Your task to perform on an android device: Play the last video I watched on Youtube Image 0: 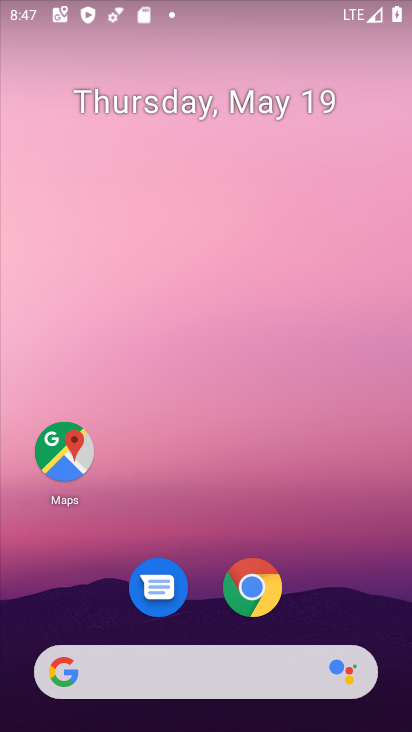
Step 0: drag from (331, 588) to (306, 28)
Your task to perform on an android device: Play the last video I watched on Youtube Image 1: 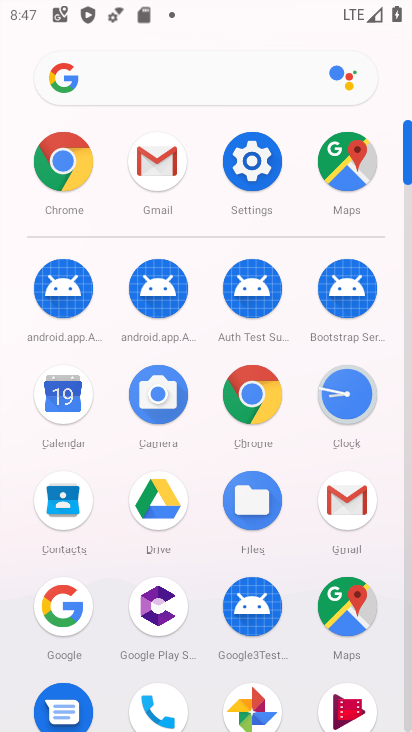
Step 1: drag from (10, 587) to (18, 277)
Your task to perform on an android device: Play the last video I watched on Youtube Image 2: 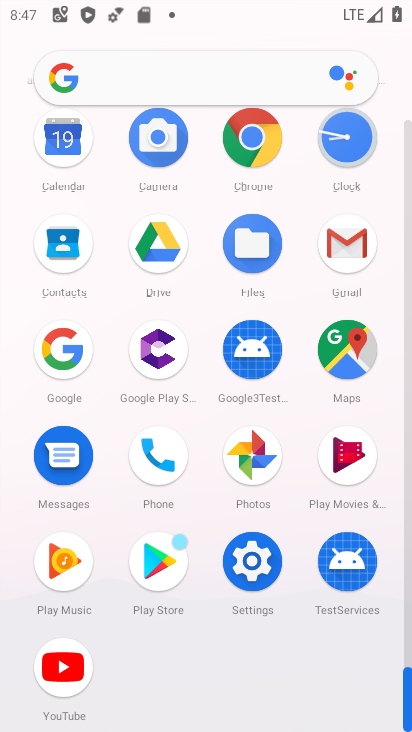
Step 2: click (63, 664)
Your task to perform on an android device: Play the last video I watched on Youtube Image 3: 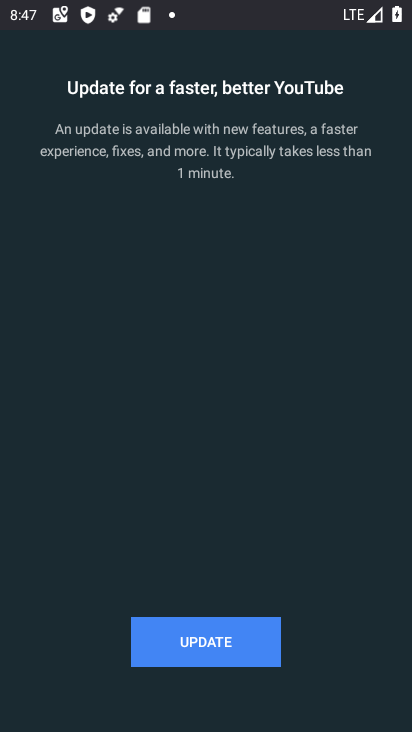
Step 3: click (216, 642)
Your task to perform on an android device: Play the last video I watched on Youtube Image 4: 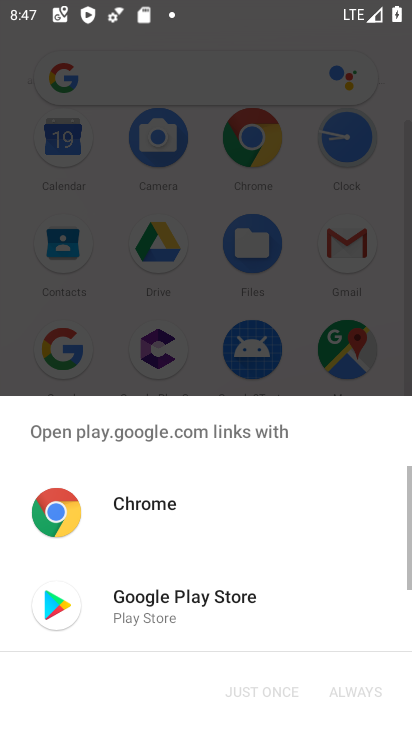
Step 4: click (174, 610)
Your task to perform on an android device: Play the last video I watched on Youtube Image 5: 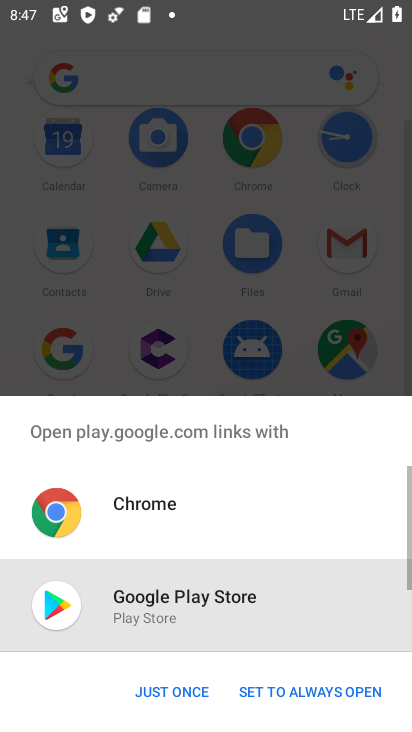
Step 5: click (192, 693)
Your task to perform on an android device: Play the last video I watched on Youtube Image 6: 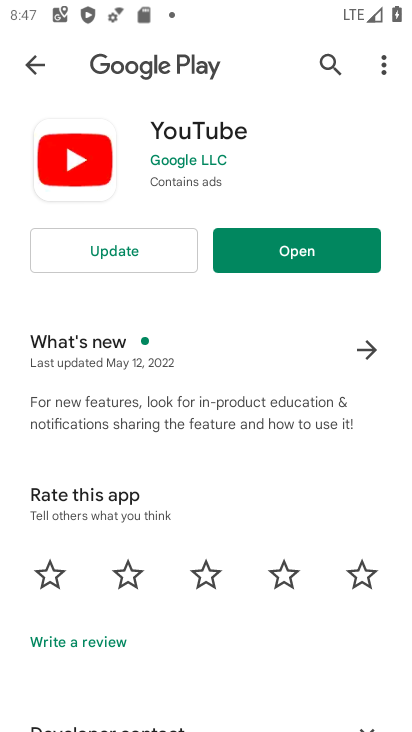
Step 6: click (101, 244)
Your task to perform on an android device: Play the last video I watched on Youtube Image 7: 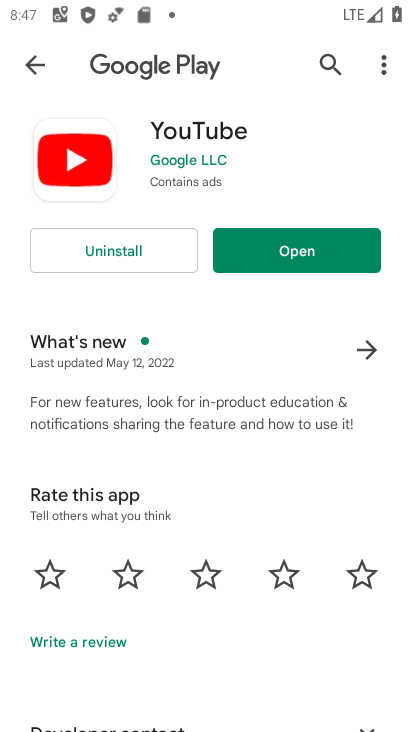
Step 7: click (263, 252)
Your task to perform on an android device: Play the last video I watched on Youtube Image 8: 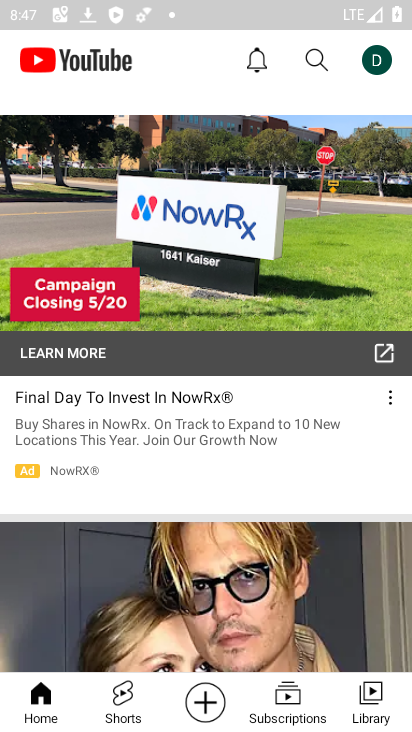
Step 8: click (376, 700)
Your task to perform on an android device: Play the last video I watched on Youtube Image 9: 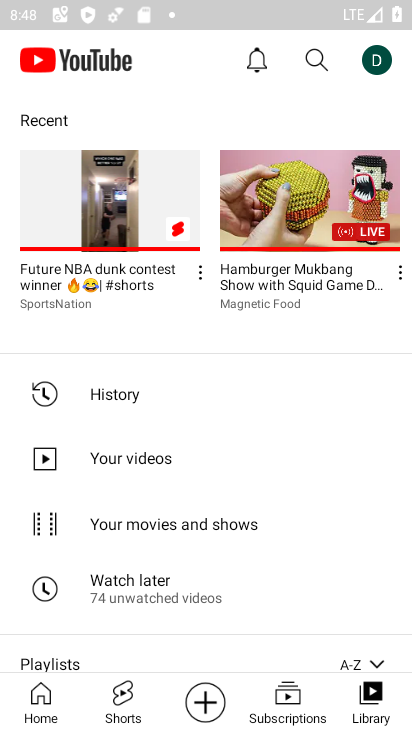
Step 9: click (89, 179)
Your task to perform on an android device: Play the last video I watched on Youtube Image 10: 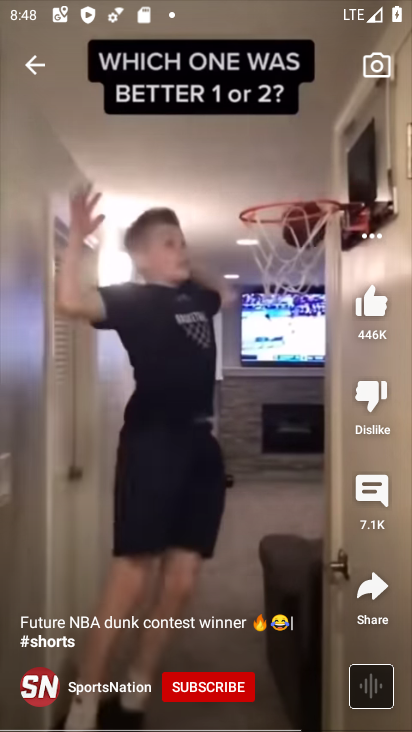
Step 10: task complete